Your task to perform on an android device: turn notification dots on Image 0: 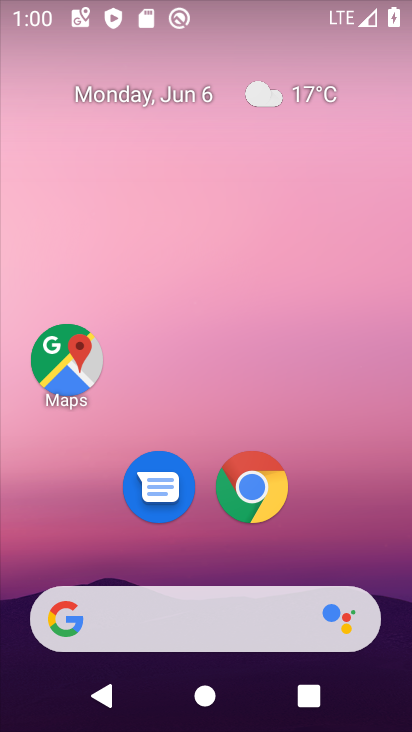
Step 0: drag from (144, 547) to (260, 64)
Your task to perform on an android device: turn notification dots on Image 1: 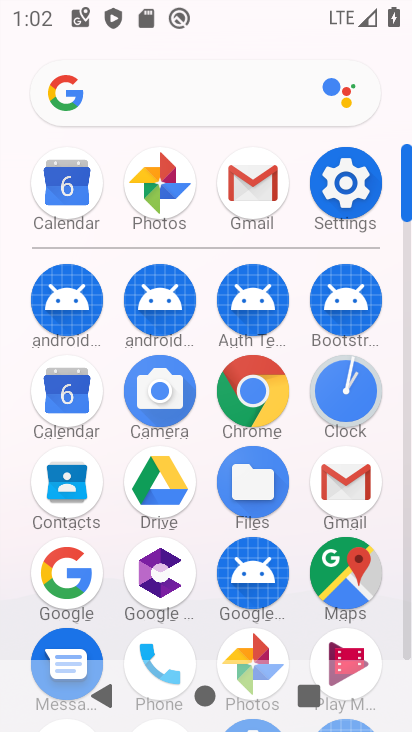
Step 1: click (334, 178)
Your task to perform on an android device: turn notification dots on Image 2: 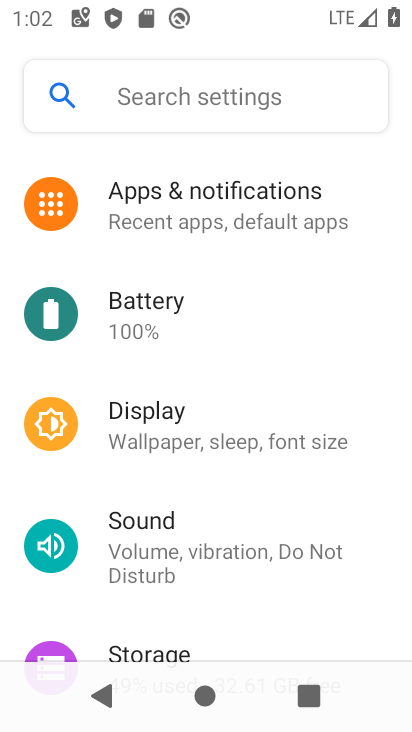
Step 2: click (284, 208)
Your task to perform on an android device: turn notification dots on Image 3: 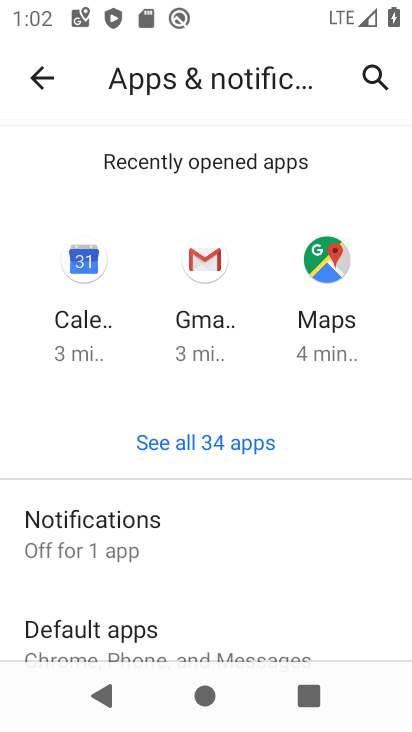
Step 3: click (169, 546)
Your task to perform on an android device: turn notification dots on Image 4: 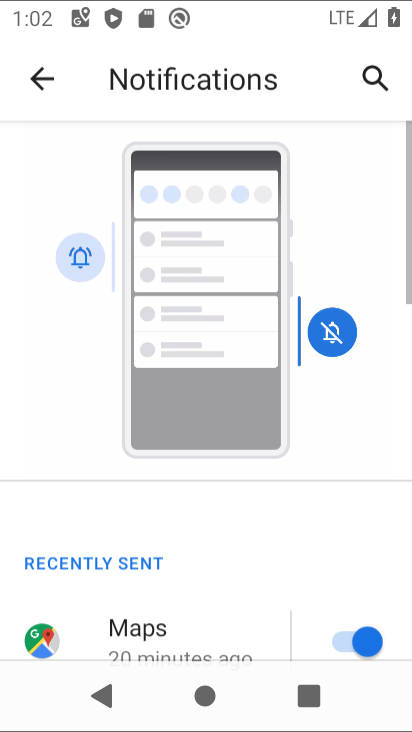
Step 4: drag from (169, 546) to (266, 99)
Your task to perform on an android device: turn notification dots on Image 5: 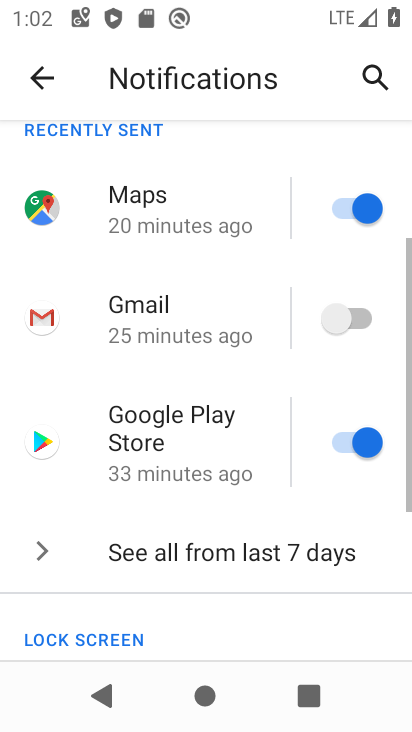
Step 5: drag from (221, 561) to (281, 36)
Your task to perform on an android device: turn notification dots on Image 6: 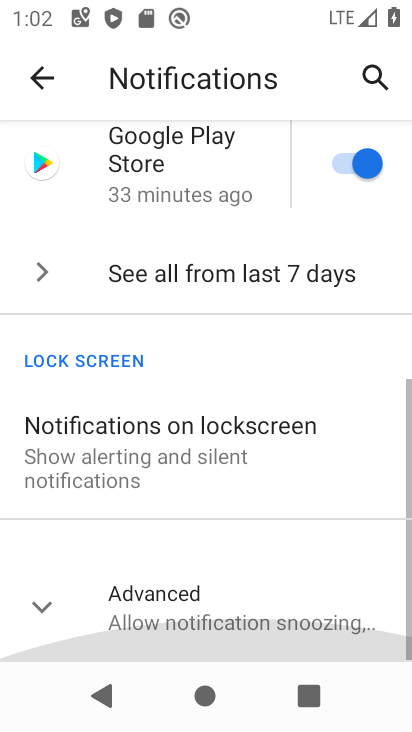
Step 6: drag from (208, 570) to (259, 46)
Your task to perform on an android device: turn notification dots on Image 7: 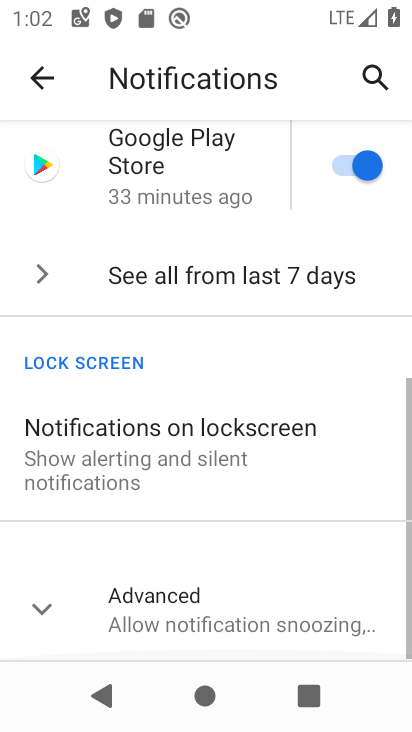
Step 7: click (171, 628)
Your task to perform on an android device: turn notification dots on Image 8: 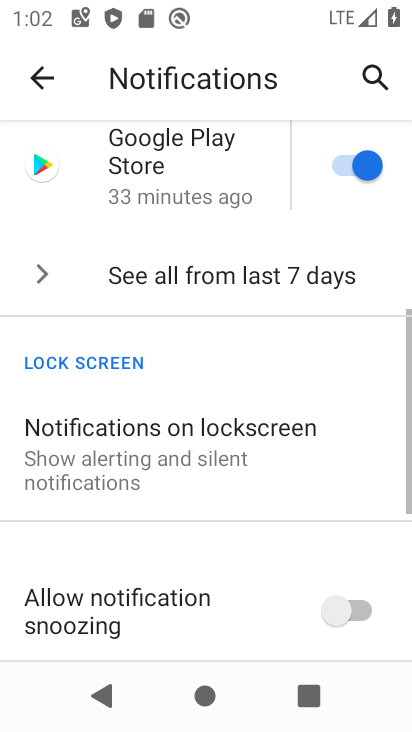
Step 8: drag from (173, 650) to (239, 208)
Your task to perform on an android device: turn notification dots on Image 9: 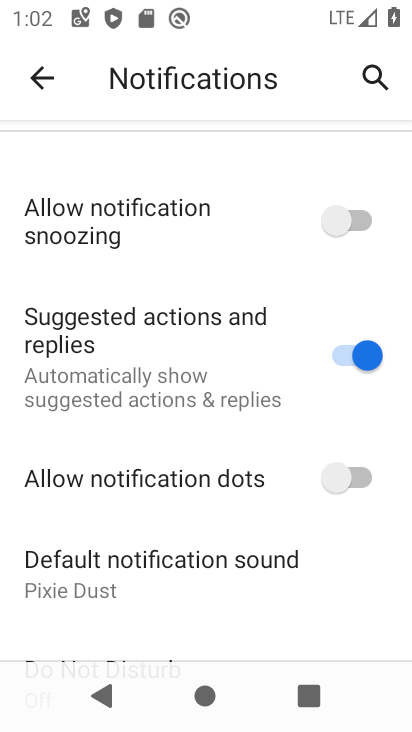
Step 9: click (342, 487)
Your task to perform on an android device: turn notification dots on Image 10: 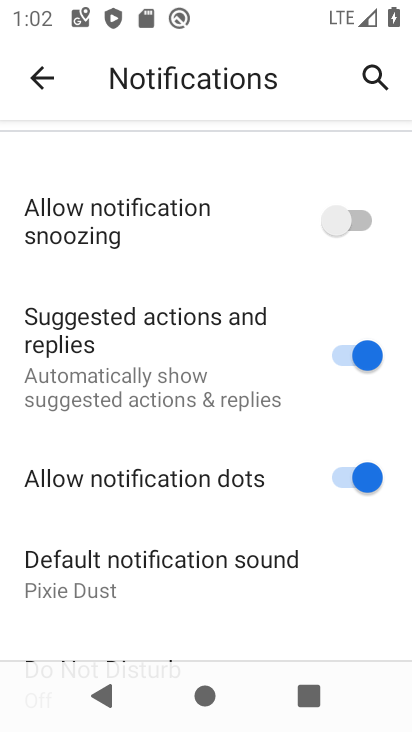
Step 10: task complete